Your task to perform on an android device: turn off wifi Image 0: 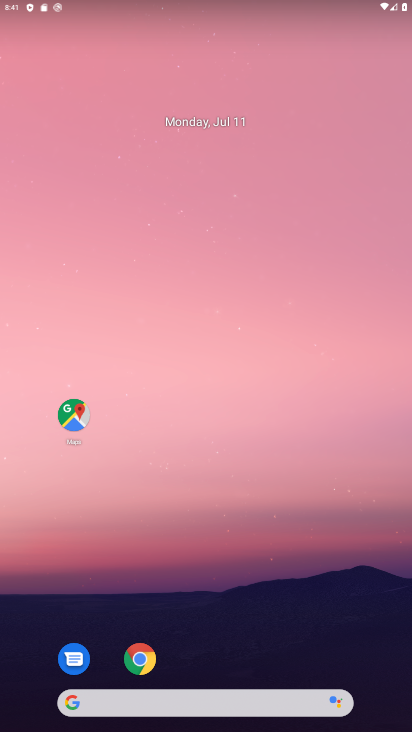
Step 0: drag from (219, 352) to (351, 5)
Your task to perform on an android device: turn off wifi Image 1: 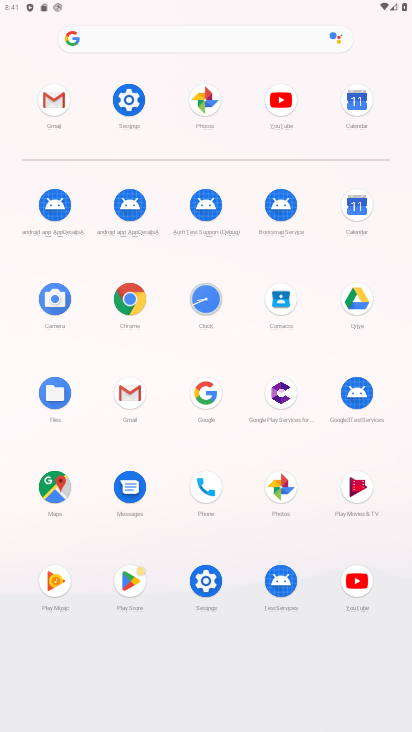
Step 1: click (203, 585)
Your task to perform on an android device: turn off wifi Image 2: 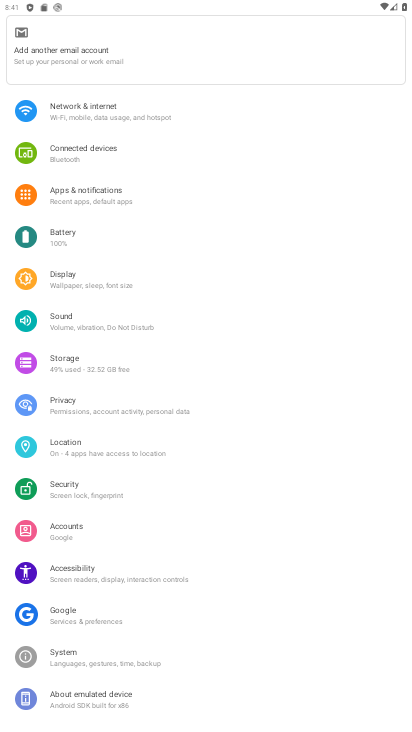
Step 2: click (90, 107)
Your task to perform on an android device: turn off wifi Image 3: 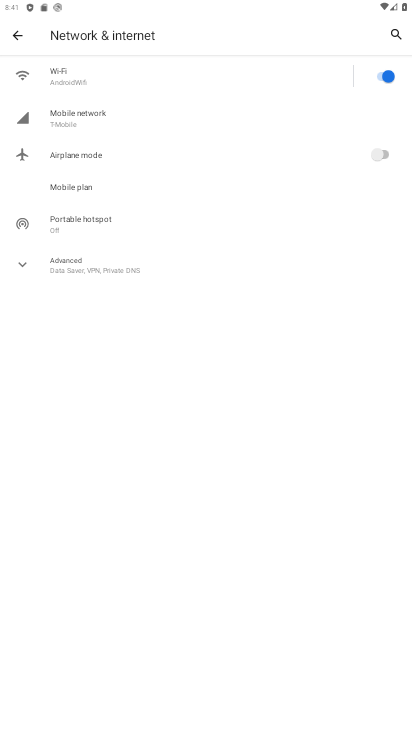
Step 3: click (390, 76)
Your task to perform on an android device: turn off wifi Image 4: 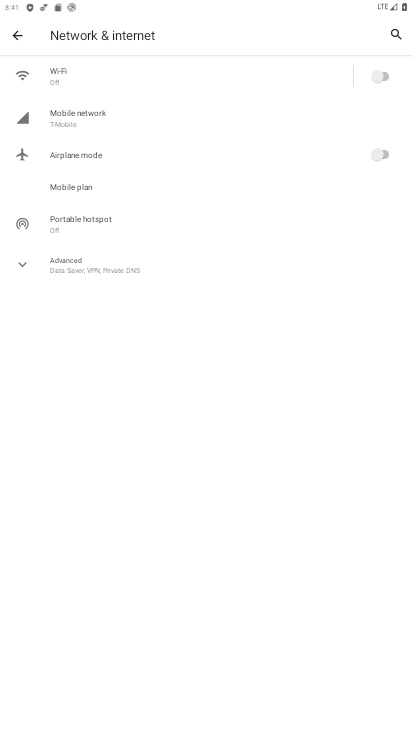
Step 4: task complete